Your task to perform on an android device: open a bookmark in the chrome app Image 0: 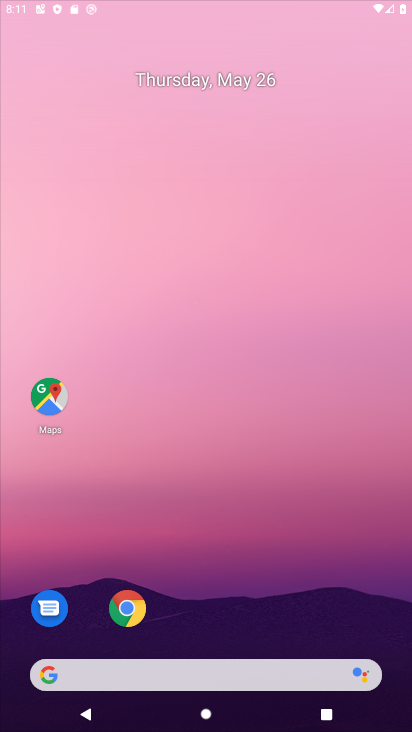
Step 0: click (129, 610)
Your task to perform on an android device: open a bookmark in the chrome app Image 1: 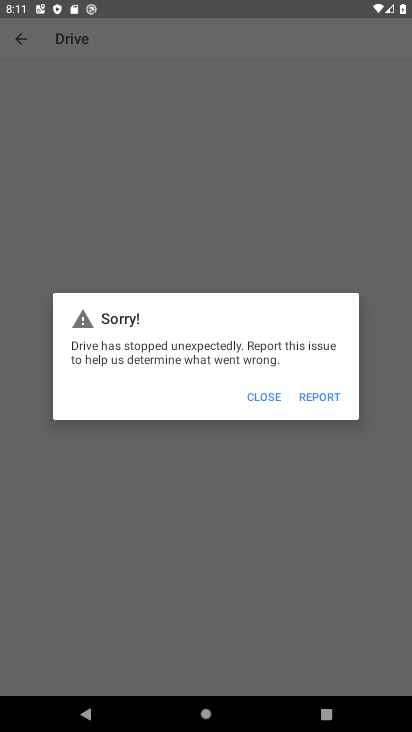
Step 1: press home button
Your task to perform on an android device: open a bookmark in the chrome app Image 2: 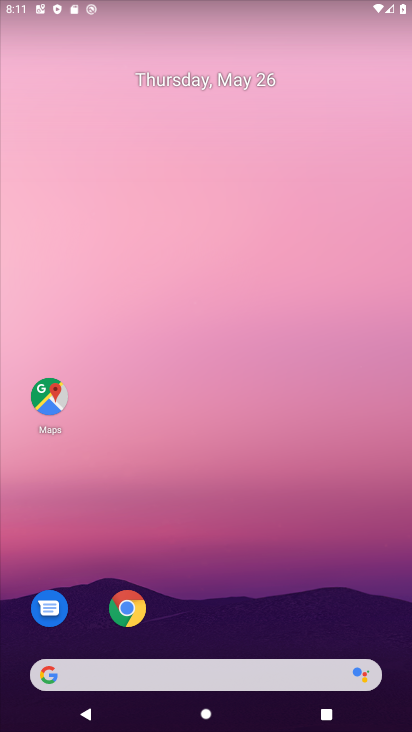
Step 2: click (128, 620)
Your task to perform on an android device: open a bookmark in the chrome app Image 3: 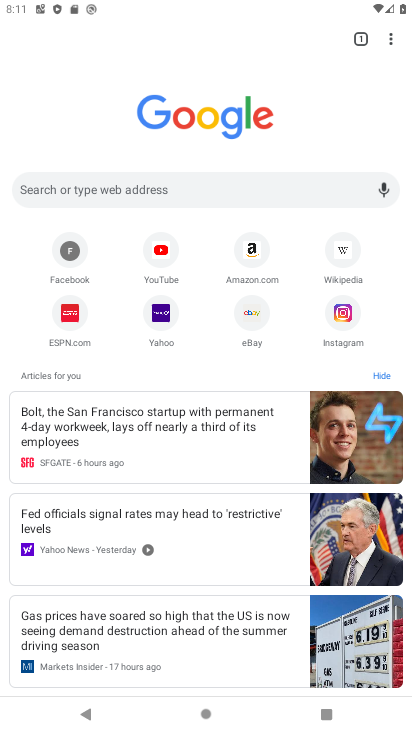
Step 3: click (392, 43)
Your task to perform on an android device: open a bookmark in the chrome app Image 4: 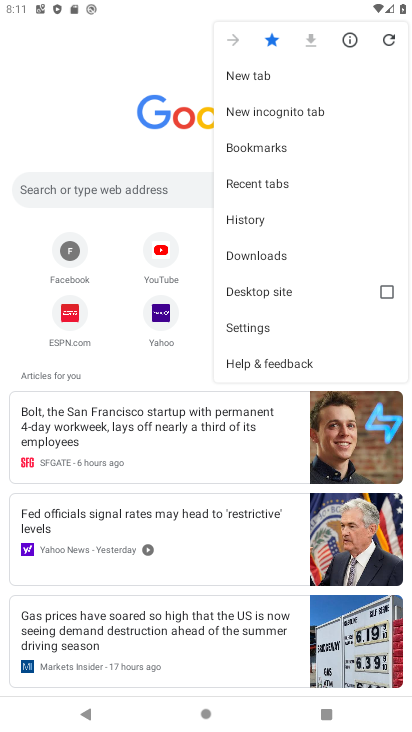
Step 4: click (265, 150)
Your task to perform on an android device: open a bookmark in the chrome app Image 5: 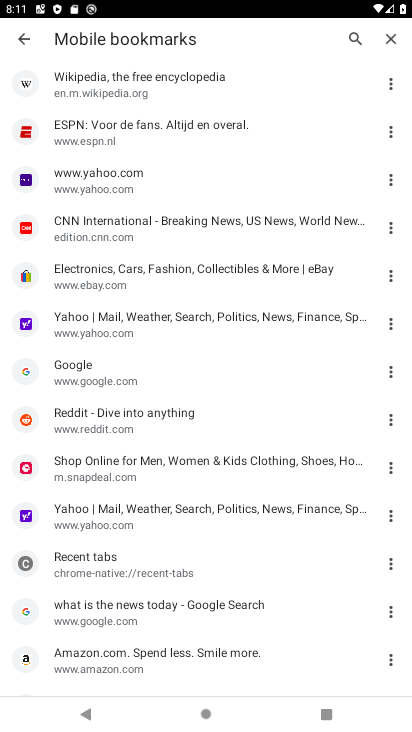
Step 5: click (168, 85)
Your task to perform on an android device: open a bookmark in the chrome app Image 6: 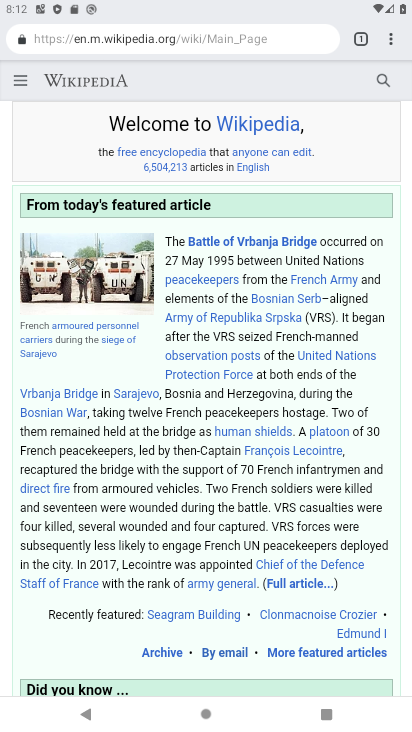
Step 6: task complete